Your task to perform on an android device: turn on bluetooth scan Image 0: 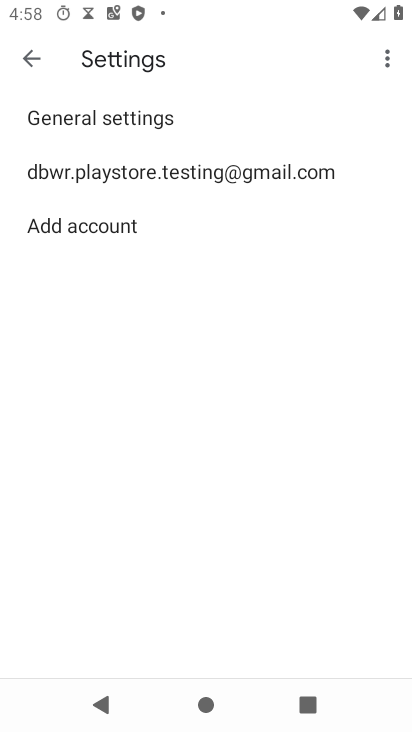
Step 0: press back button
Your task to perform on an android device: turn on bluetooth scan Image 1: 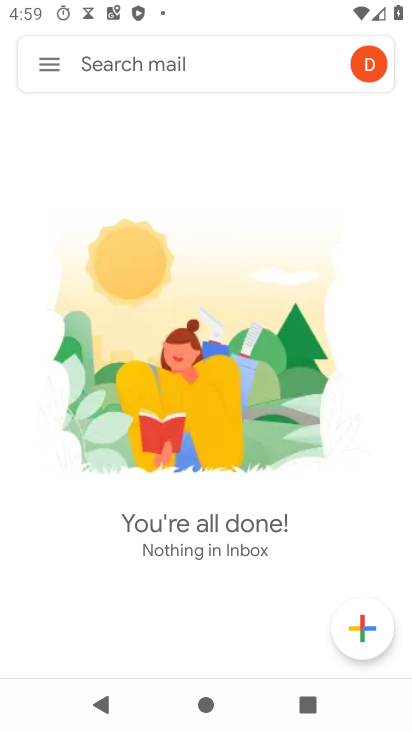
Step 1: press back button
Your task to perform on an android device: turn on bluetooth scan Image 2: 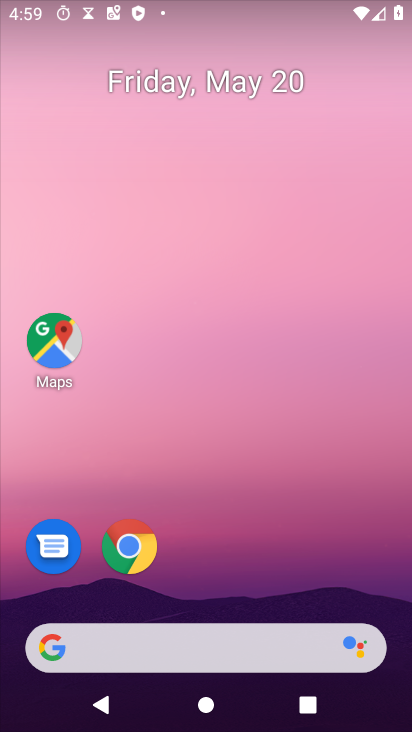
Step 2: drag from (241, 574) to (181, 196)
Your task to perform on an android device: turn on bluetooth scan Image 3: 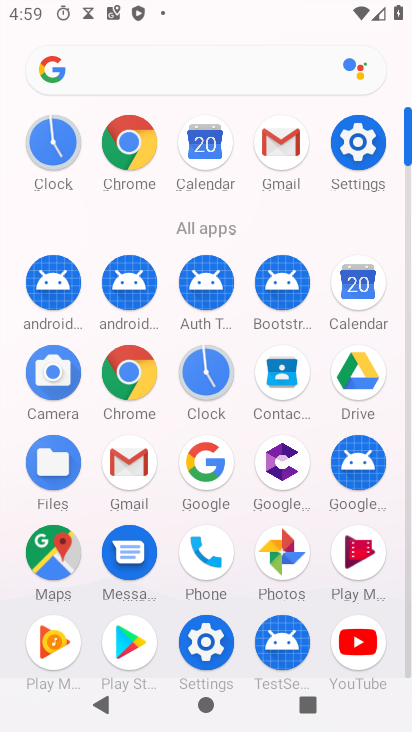
Step 3: click (357, 145)
Your task to perform on an android device: turn on bluetooth scan Image 4: 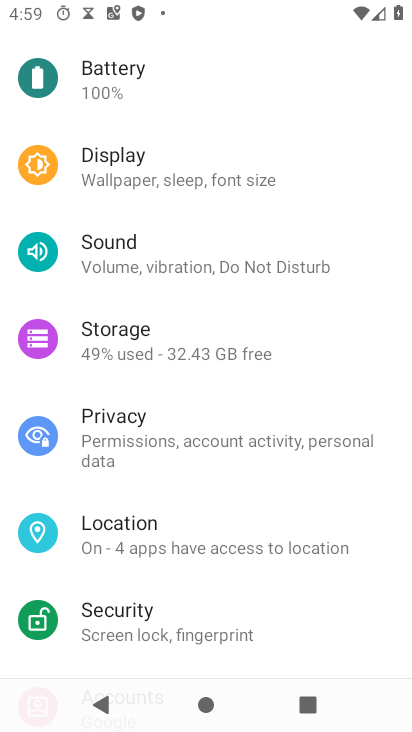
Step 4: drag from (172, 516) to (198, 417)
Your task to perform on an android device: turn on bluetooth scan Image 5: 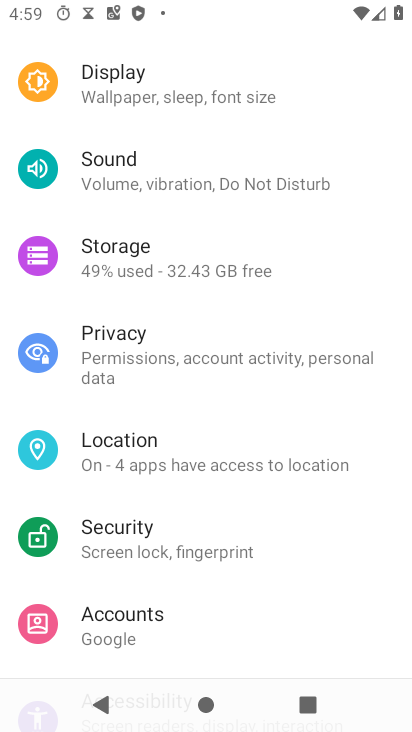
Step 5: click (148, 455)
Your task to perform on an android device: turn on bluetooth scan Image 6: 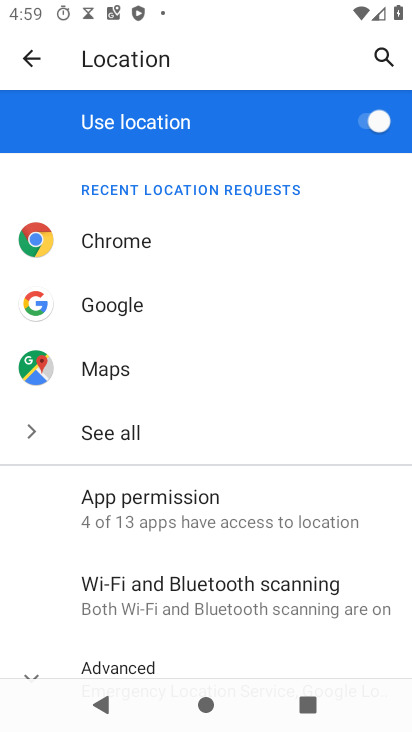
Step 6: click (157, 595)
Your task to perform on an android device: turn on bluetooth scan Image 7: 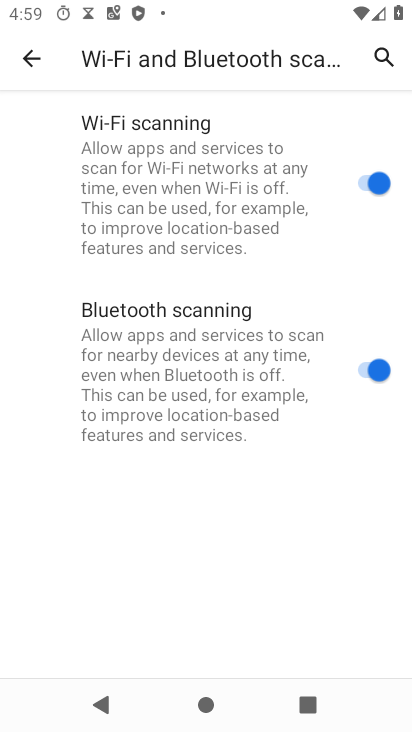
Step 7: task complete